Your task to perform on an android device: turn off location Image 0: 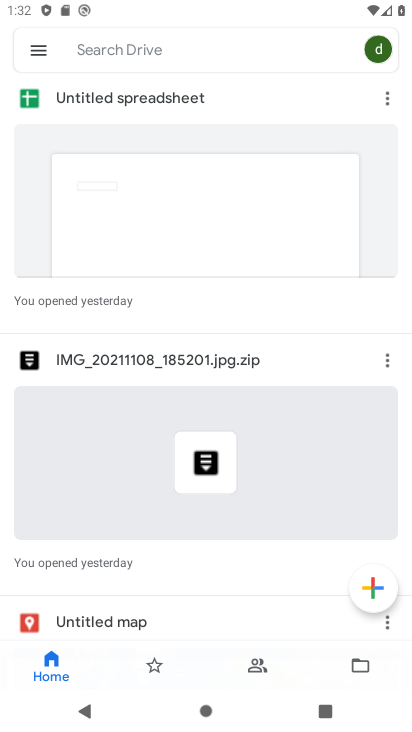
Step 0: press home button
Your task to perform on an android device: turn off location Image 1: 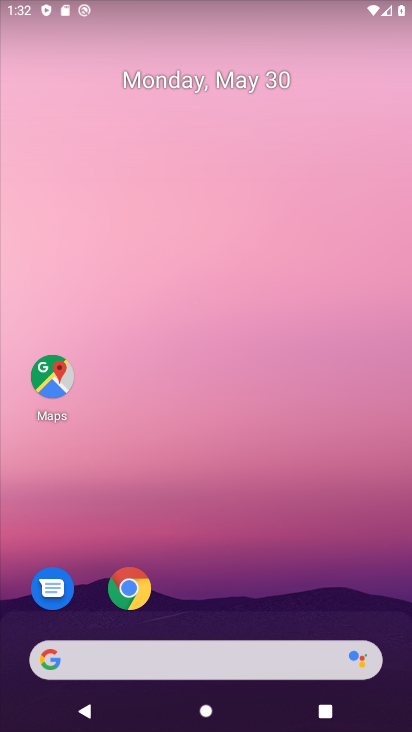
Step 1: drag from (213, 660) to (335, 109)
Your task to perform on an android device: turn off location Image 2: 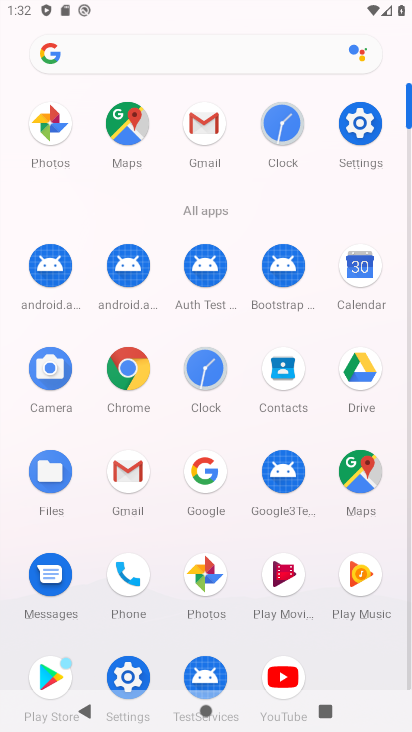
Step 2: drag from (170, 627) to (240, 335)
Your task to perform on an android device: turn off location Image 3: 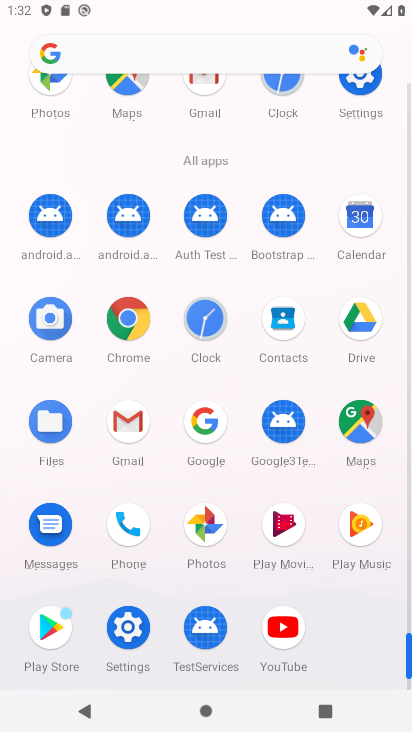
Step 3: click (120, 644)
Your task to perform on an android device: turn off location Image 4: 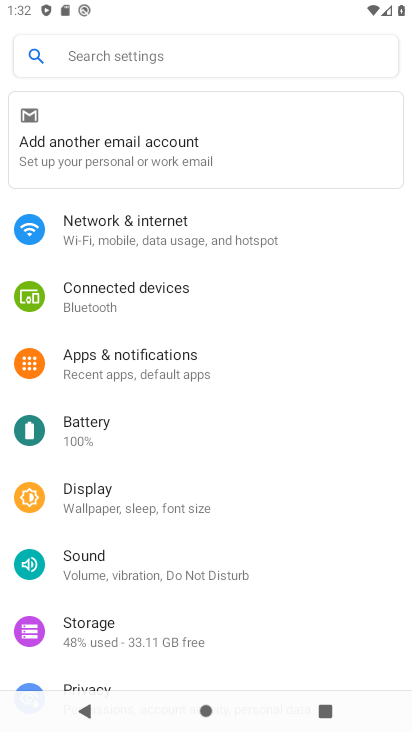
Step 4: drag from (162, 652) to (276, 361)
Your task to perform on an android device: turn off location Image 5: 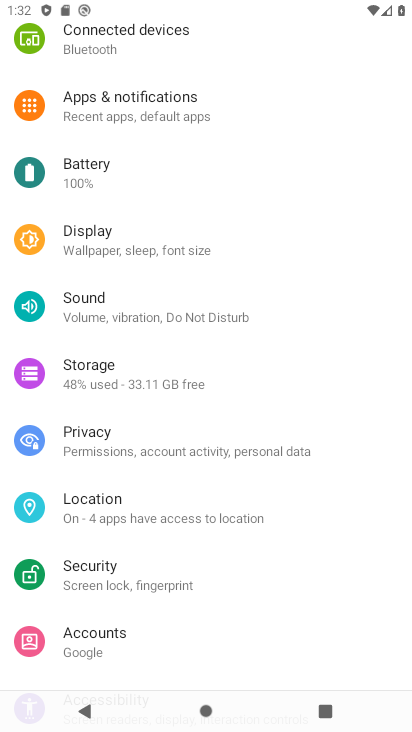
Step 5: click (206, 505)
Your task to perform on an android device: turn off location Image 6: 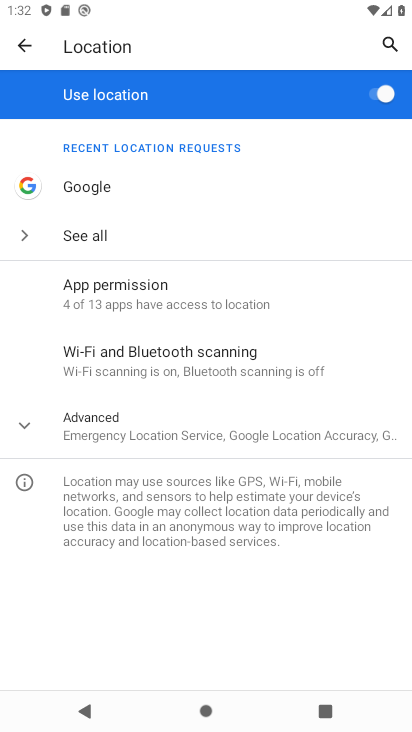
Step 6: click (381, 92)
Your task to perform on an android device: turn off location Image 7: 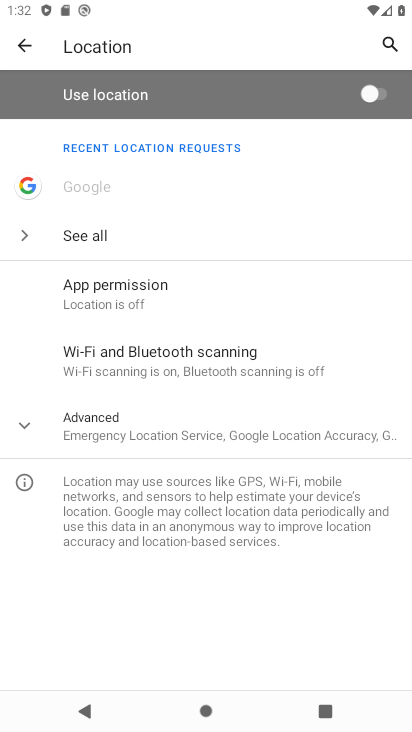
Step 7: task complete